Your task to perform on an android device: Show me productivity apps on the Play Store Image 0: 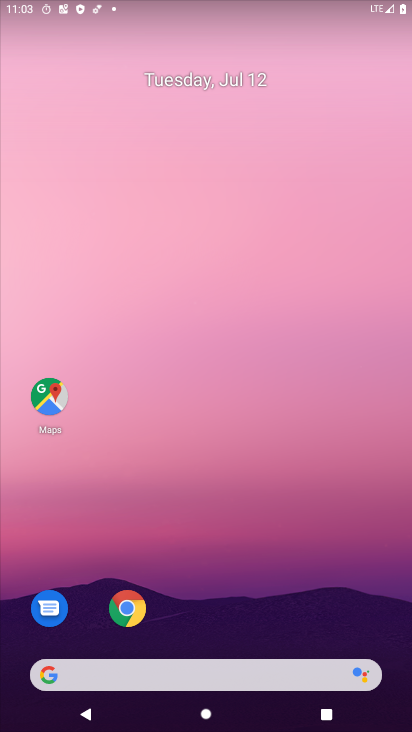
Step 0: drag from (291, 578) to (304, 89)
Your task to perform on an android device: Show me productivity apps on the Play Store Image 1: 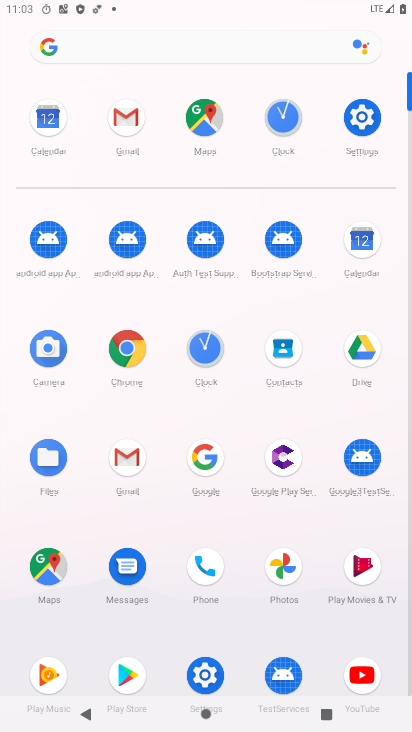
Step 1: click (118, 672)
Your task to perform on an android device: Show me productivity apps on the Play Store Image 2: 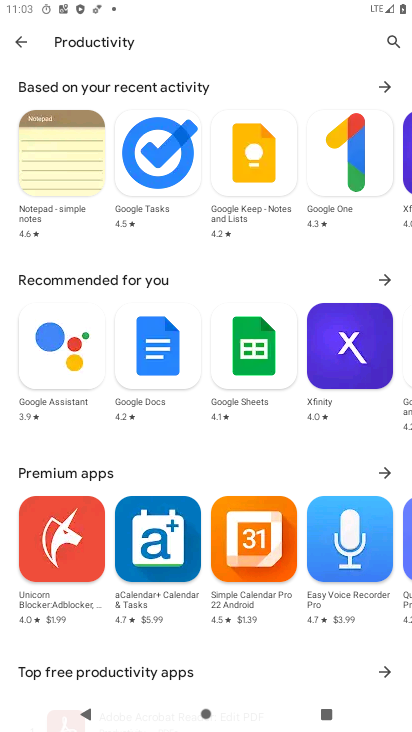
Step 2: task complete